Your task to perform on an android device: change alarm snooze length Image 0: 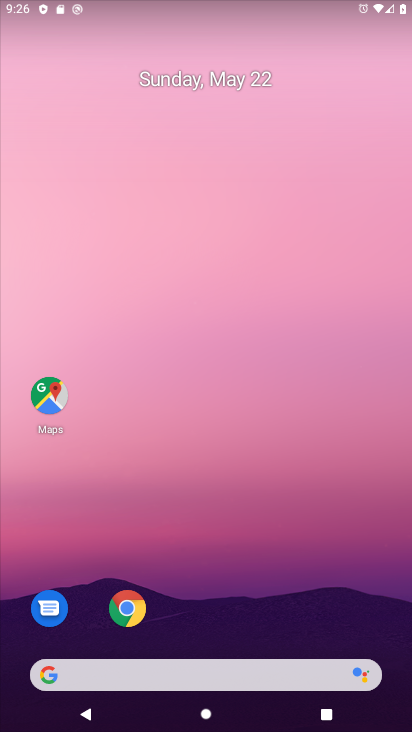
Step 0: drag from (280, 594) to (283, 44)
Your task to perform on an android device: change alarm snooze length Image 1: 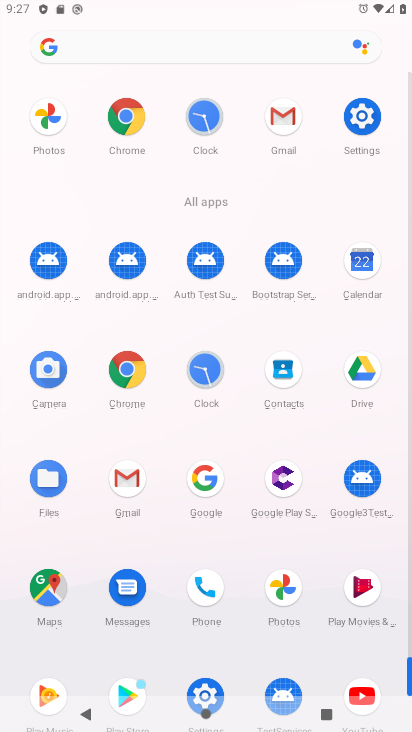
Step 1: click (204, 373)
Your task to perform on an android device: change alarm snooze length Image 2: 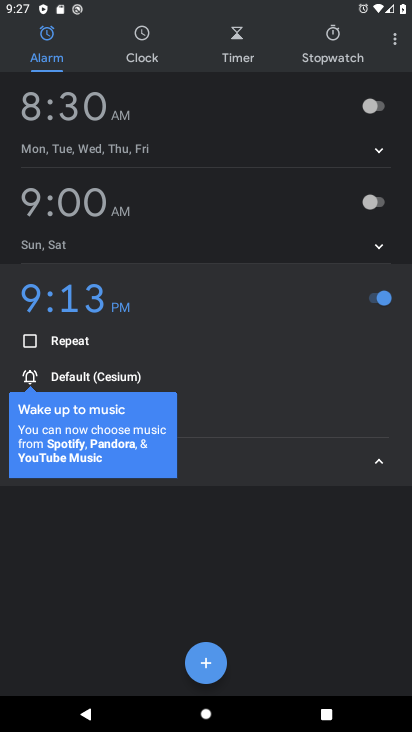
Step 2: drag from (393, 39) to (339, 78)
Your task to perform on an android device: change alarm snooze length Image 3: 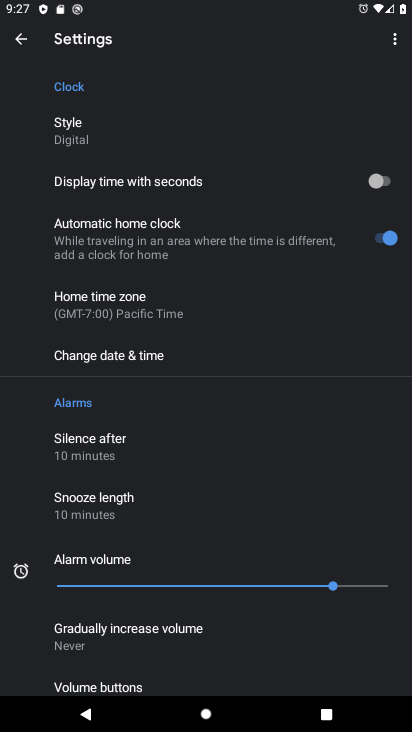
Step 3: drag from (208, 532) to (203, 262)
Your task to perform on an android device: change alarm snooze length Image 4: 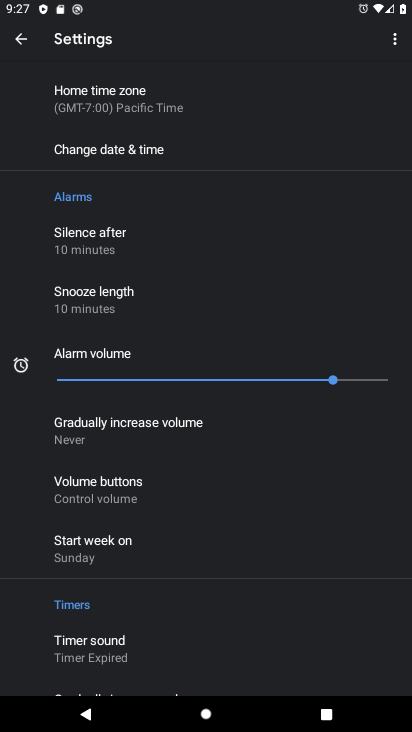
Step 4: click (108, 294)
Your task to perform on an android device: change alarm snooze length Image 5: 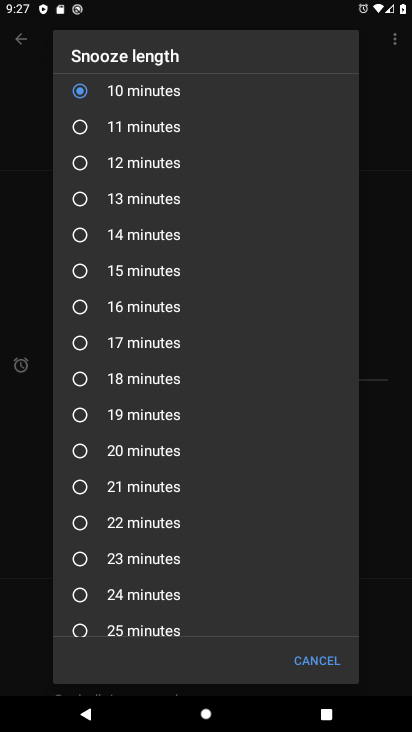
Step 5: click (124, 125)
Your task to perform on an android device: change alarm snooze length Image 6: 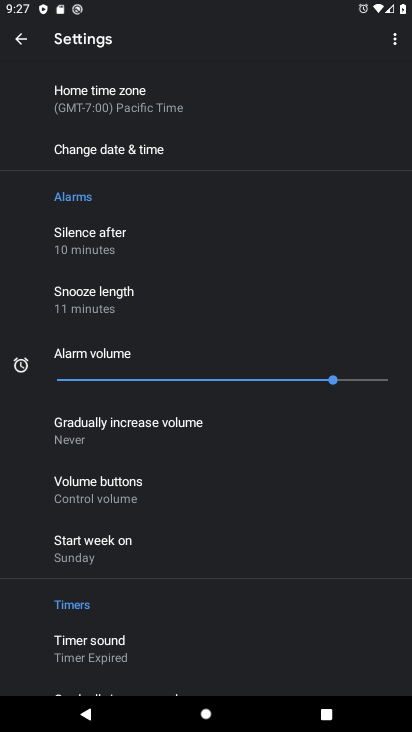
Step 6: task complete